Your task to perform on an android device: Show me productivity apps on the Play Store Image 0: 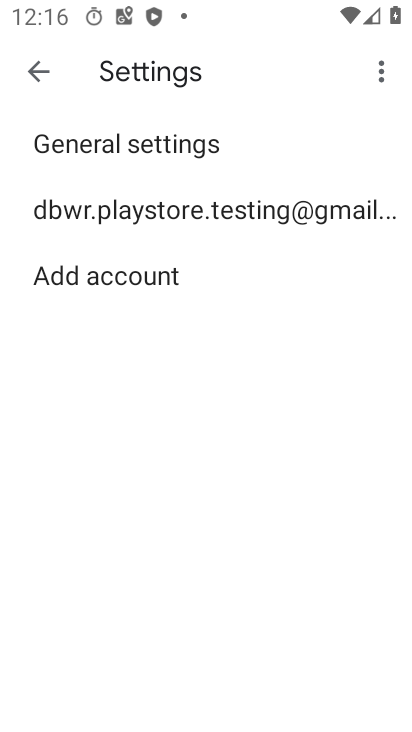
Step 0: click (26, 77)
Your task to perform on an android device: Show me productivity apps on the Play Store Image 1: 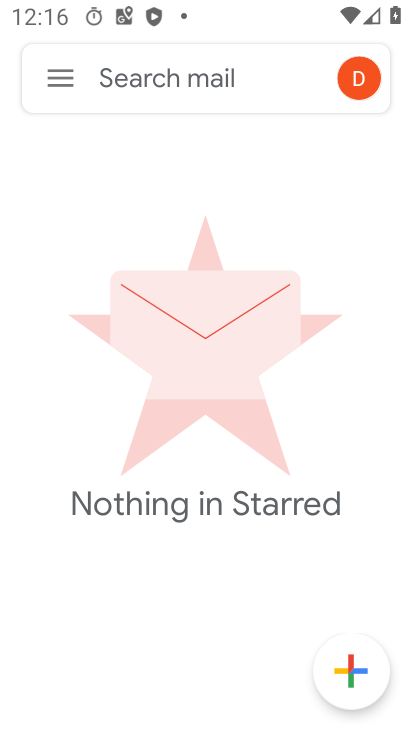
Step 1: press back button
Your task to perform on an android device: Show me productivity apps on the Play Store Image 2: 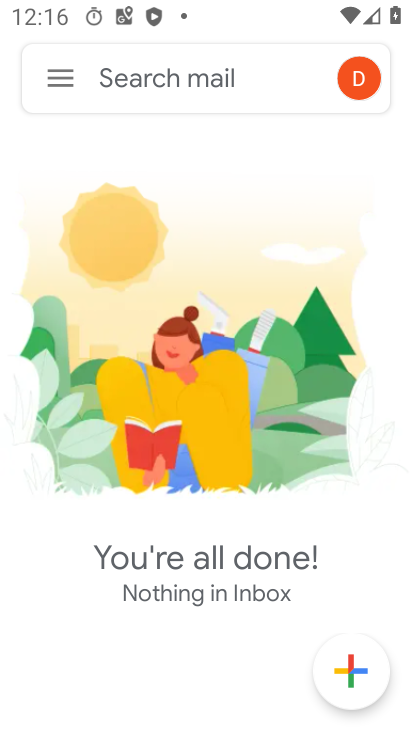
Step 2: press home button
Your task to perform on an android device: Show me productivity apps on the Play Store Image 3: 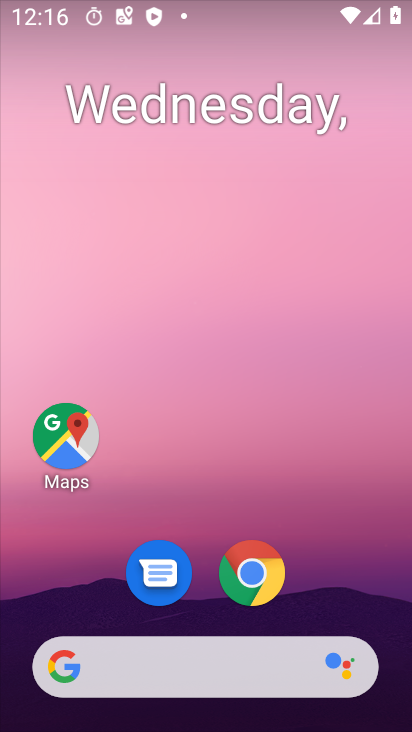
Step 3: drag from (362, 576) to (119, 95)
Your task to perform on an android device: Show me productivity apps on the Play Store Image 4: 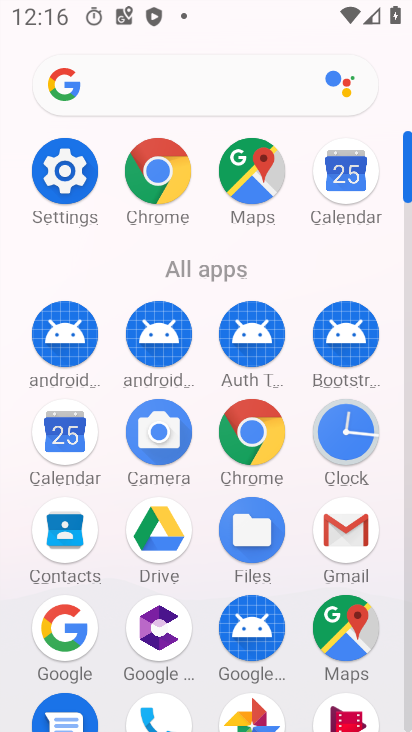
Step 4: drag from (208, 324) to (208, 213)
Your task to perform on an android device: Show me productivity apps on the Play Store Image 5: 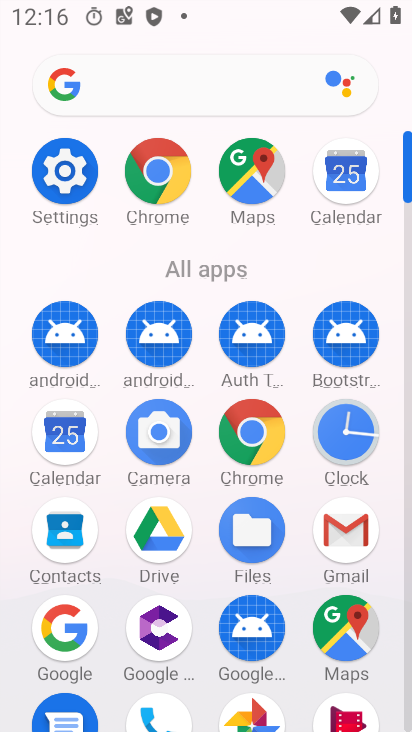
Step 5: drag from (203, 410) to (210, 132)
Your task to perform on an android device: Show me productivity apps on the Play Store Image 6: 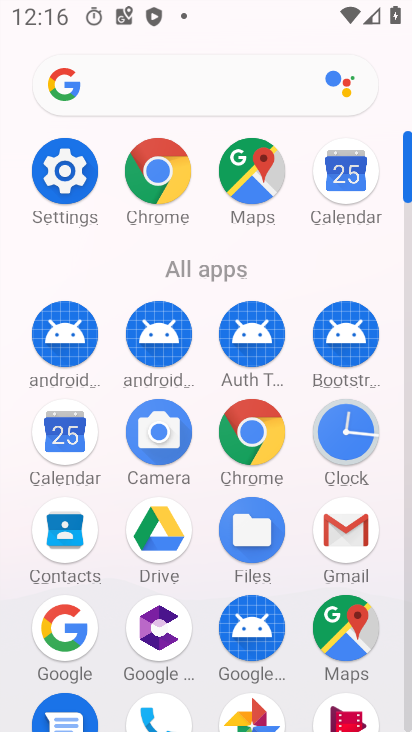
Step 6: drag from (232, 468) to (231, 202)
Your task to perform on an android device: Show me productivity apps on the Play Store Image 7: 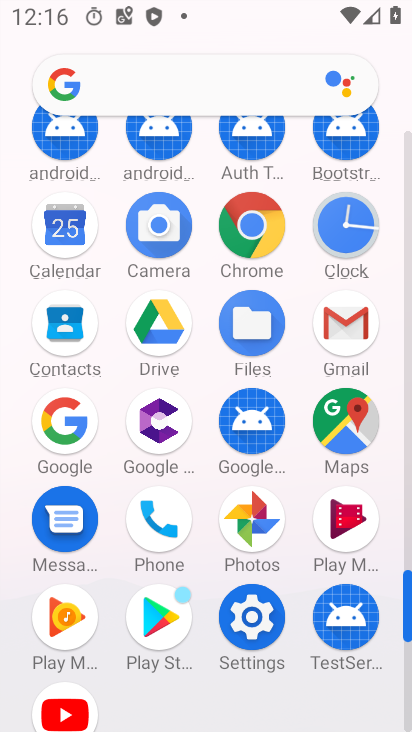
Step 7: drag from (281, 540) to (290, 171)
Your task to perform on an android device: Show me productivity apps on the Play Store Image 8: 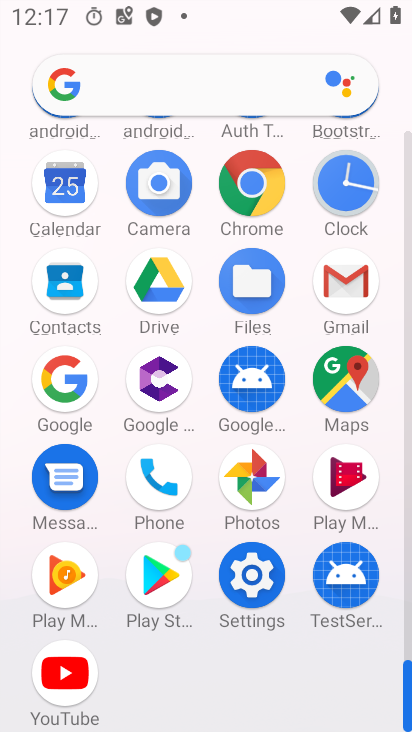
Step 8: click (164, 582)
Your task to perform on an android device: Show me productivity apps on the Play Store Image 9: 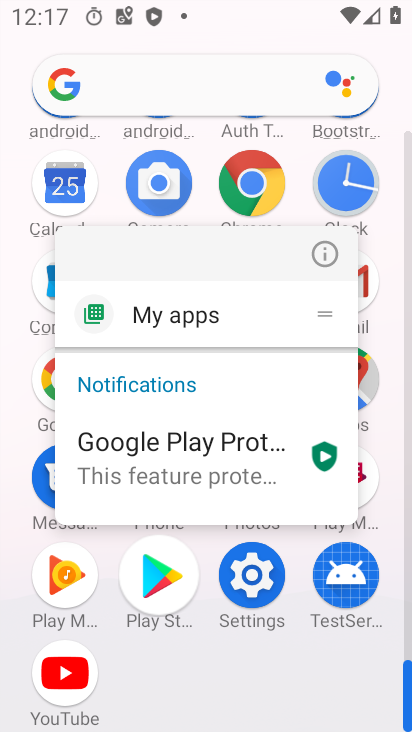
Step 9: click (168, 579)
Your task to perform on an android device: Show me productivity apps on the Play Store Image 10: 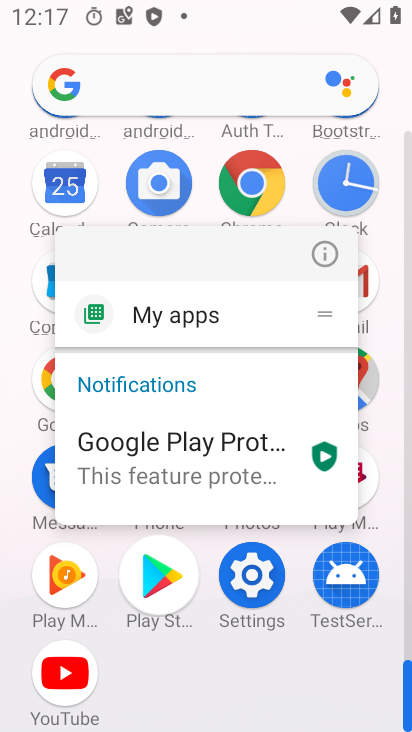
Step 10: click (169, 579)
Your task to perform on an android device: Show me productivity apps on the Play Store Image 11: 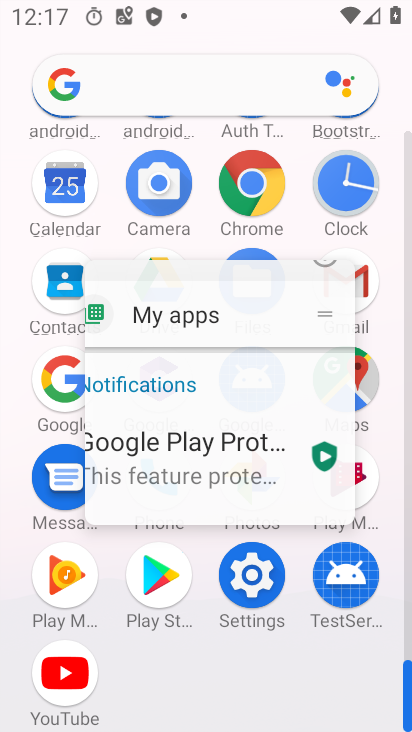
Step 11: click (169, 579)
Your task to perform on an android device: Show me productivity apps on the Play Store Image 12: 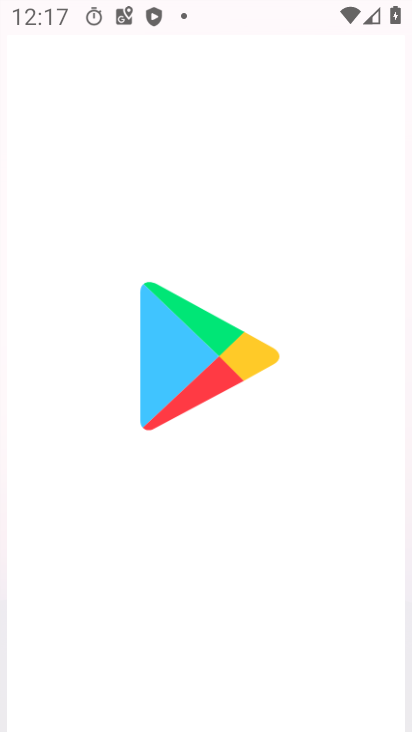
Step 12: click (170, 580)
Your task to perform on an android device: Show me productivity apps on the Play Store Image 13: 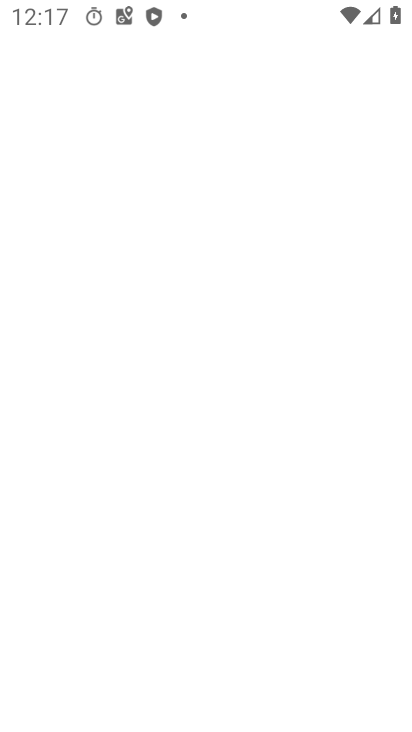
Step 13: click (170, 577)
Your task to perform on an android device: Show me productivity apps on the Play Store Image 14: 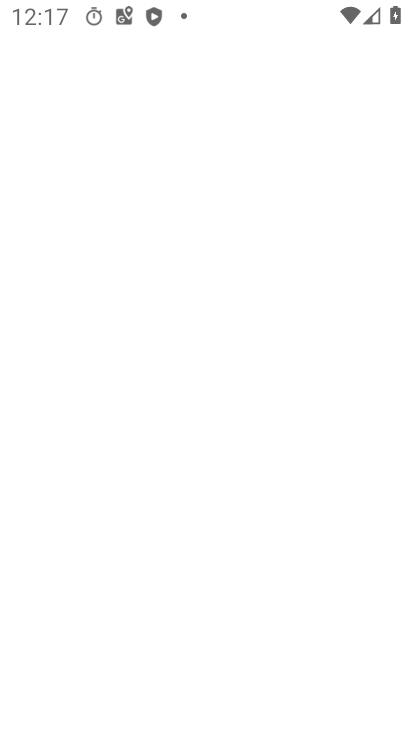
Step 14: click (170, 568)
Your task to perform on an android device: Show me productivity apps on the Play Store Image 15: 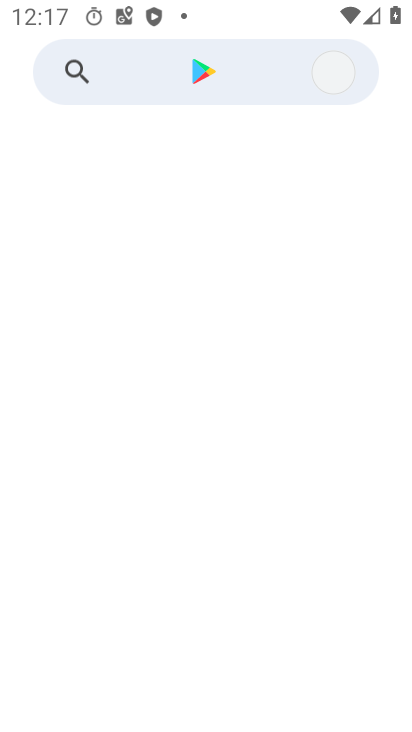
Step 15: click (168, 566)
Your task to perform on an android device: Show me productivity apps on the Play Store Image 16: 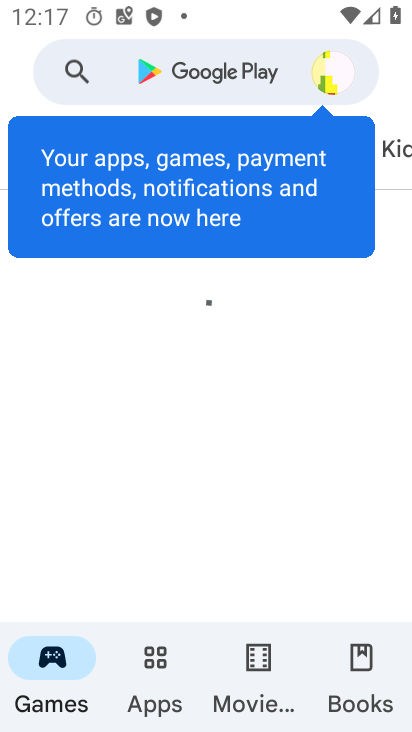
Step 16: click (168, 565)
Your task to perform on an android device: Show me productivity apps on the Play Store Image 17: 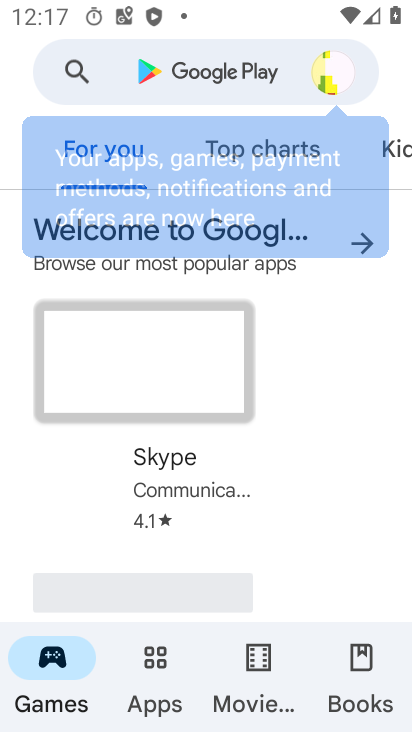
Step 17: click (171, 563)
Your task to perform on an android device: Show me productivity apps on the Play Store Image 18: 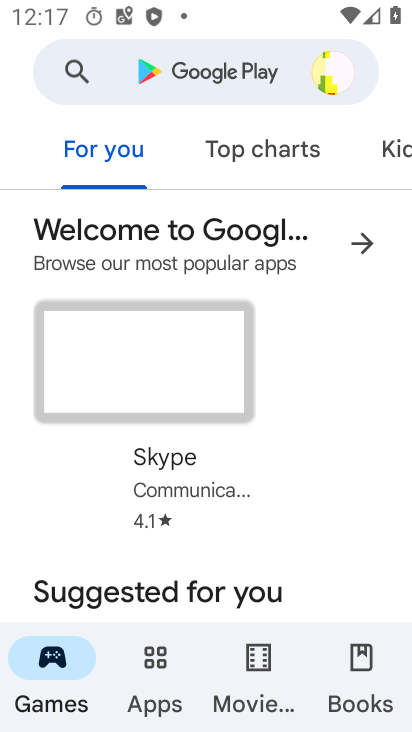
Step 18: click (171, 561)
Your task to perform on an android device: Show me productivity apps on the Play Store Image 19: 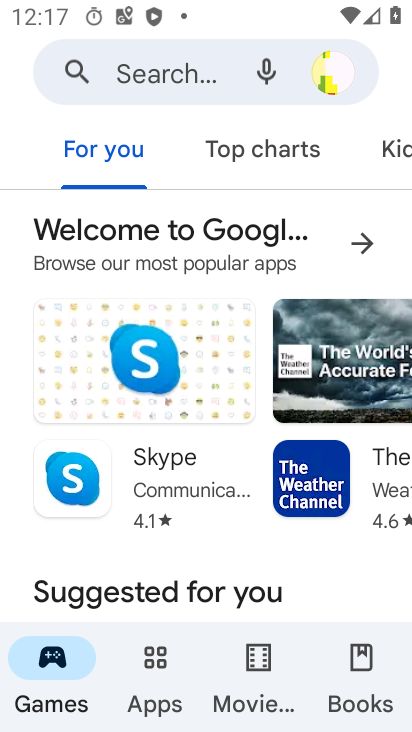
Step 19: drag from (214, 451) to (214, 241)
Your task to perform on an android device: Show me productivity apps on the Play Store Image 20: 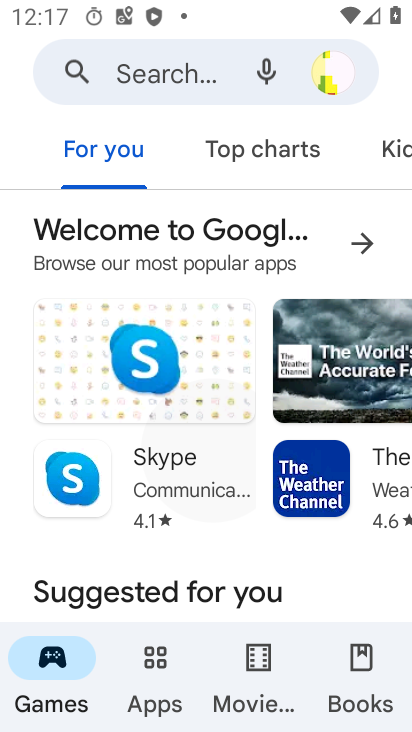
Step 20: drag from (237, 452) to (214, 166)
Your task to perform on an android device: Show me productivity apps on the Play Store Image 21: 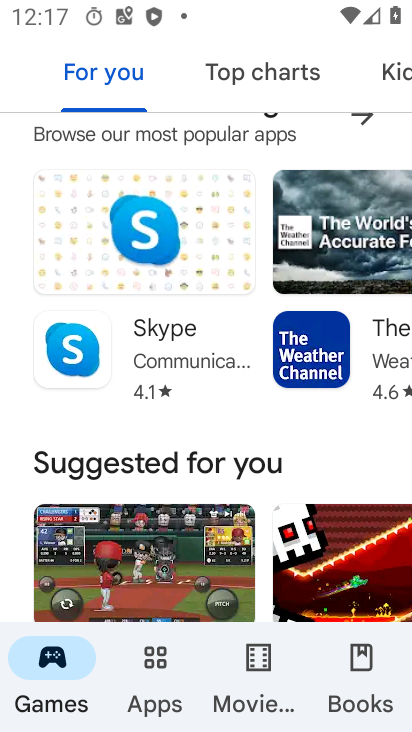
Step 21: drag from (256, 481) to (256, 120)
Your task to perform on an android device: Show me productivity apps on the Play Store Image 22: 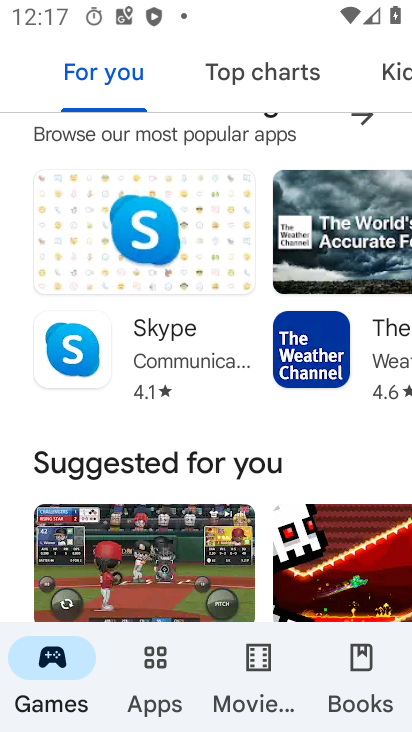
Step 22: drag from (253, 547) to (269, 179)
Your task to perform on an android device: Show me productivity apps on the Play Store Image 23: 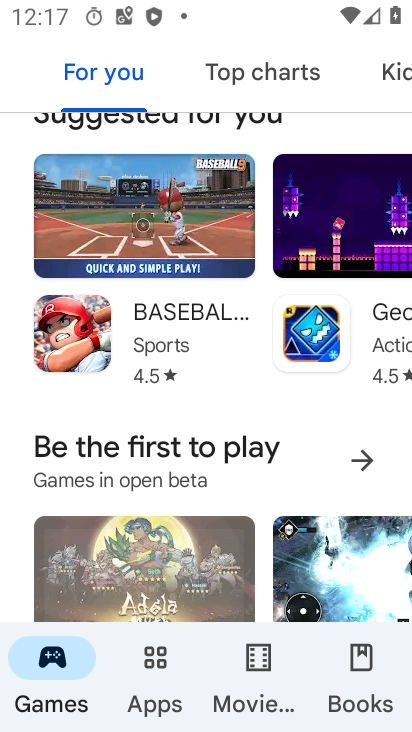
Step 23: drag from (253, 393) to (290, 46)
Your task to perform on an android device: Show me productivity apps on the Play Store Image 24: 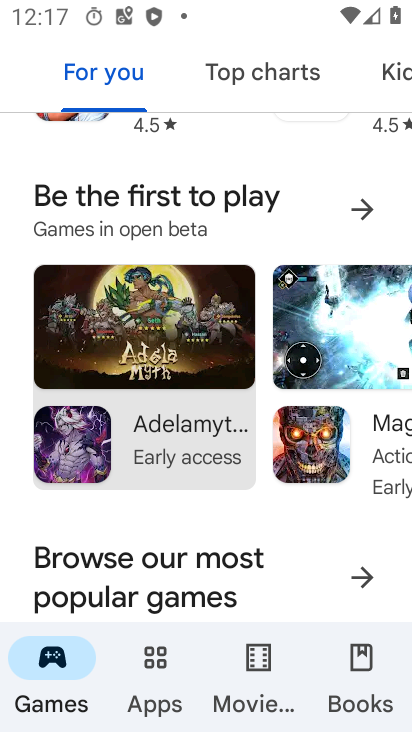
Step 24: click (358, 99)
Your task to perform on an android device: Show me productivity apps on the Play Store Image 25: 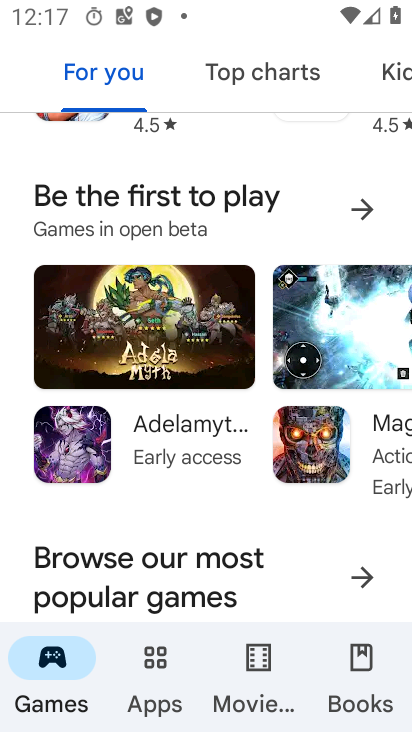
Step 25: drag from (205, 317) to (205, 63)
Your task to perform on an android device: Show me productivity apps on the Play Store Image 26: 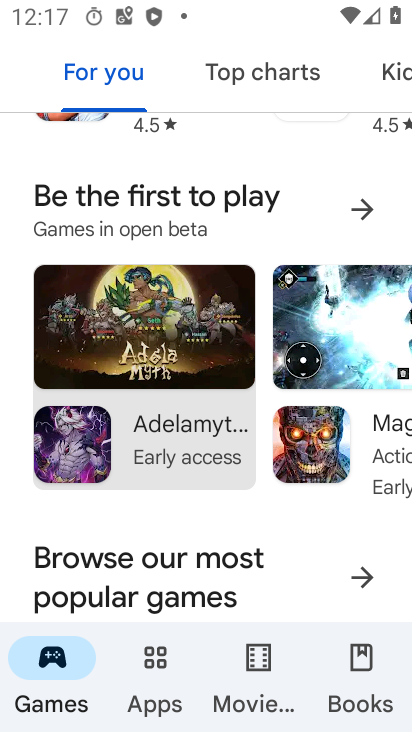
Step 26: drag from (166, 230) to (195, 103)
Your task to perform on an android device: Show me productivity apps on the Play Store Image 27: 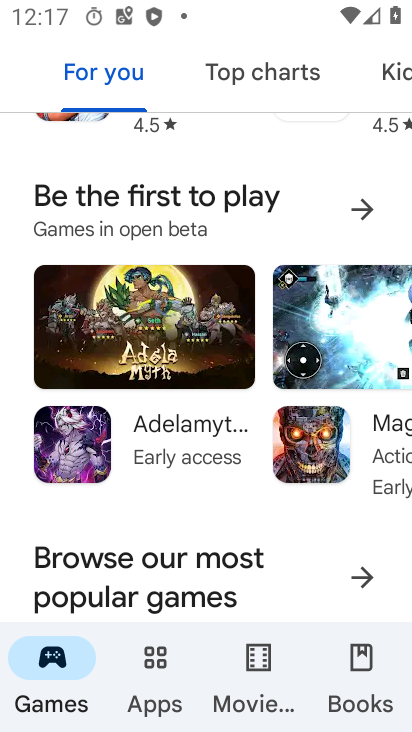
Step 27: drag from (219, 396) to (276, 29)
Your task to perform on an android device: Show me productivity apps on the Play Store Image 28: 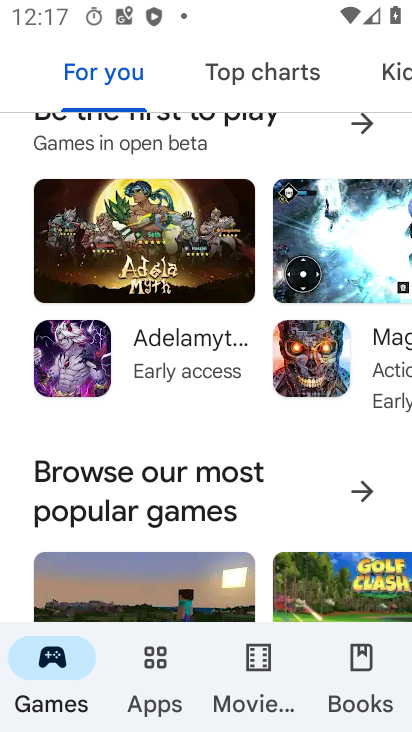
Step 28: drag from (248, 481) to (272, 142)
Your task to perform on an android device: Show me productivity apps on the Play Store Image 29: 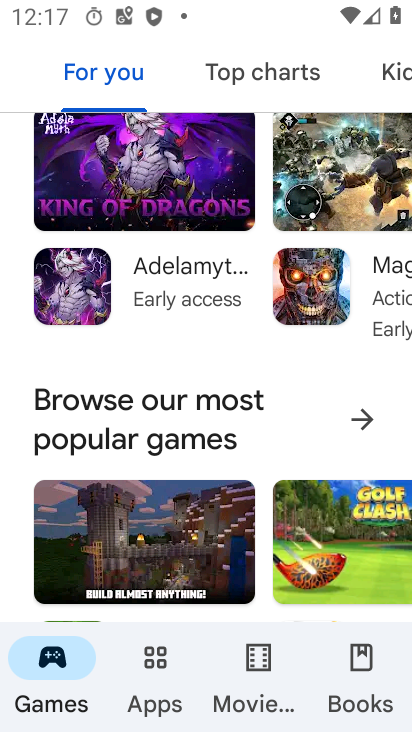
Step 29: drag from (167, 173) to (183, 727)
Your task to perform on an android device: Show me productivity apps on the Play Store Image 30: 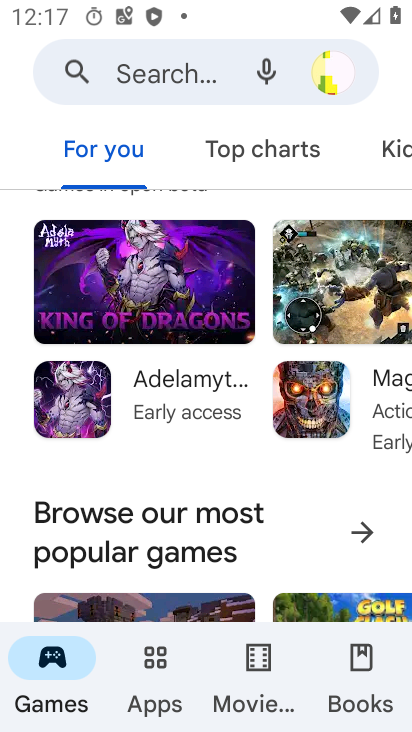
Step 30: drag from (115, 248) to (256, 614)
Your task to perform on an android device: Show me productivity apps on the Play Store Image 31: 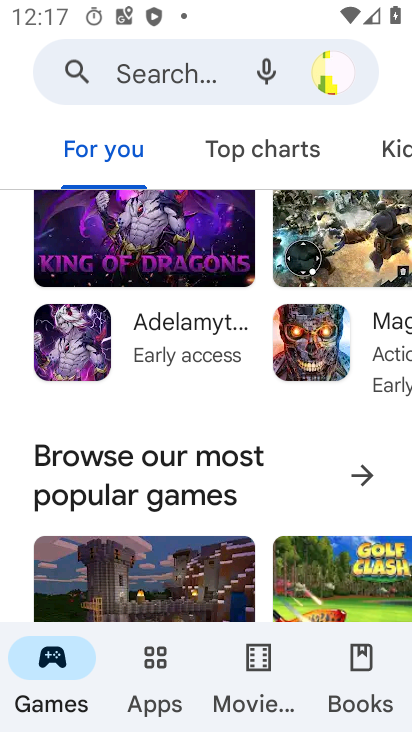
Step 31: drag from (186, 444) to (214, 554)
Your task to perform on an android device: Show me productivity apps on the Play Store Image 32: 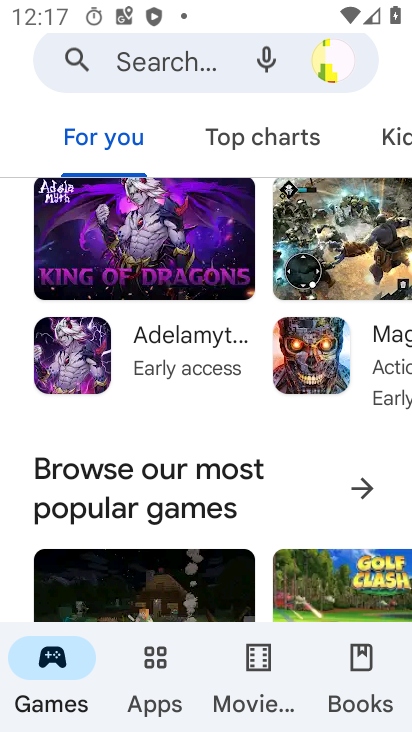
Step 32: drag from (80, 162) to (211, 570)
Your task to perform on an android device: Show me productivity apps on the Play Store Image 33: 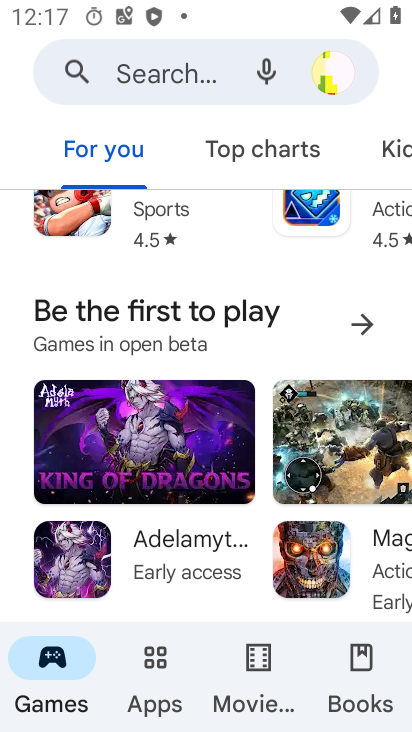
Step 33: click (141, 68)
Your task to perform on an android device: Show me productivity apps on the Play Store Image 34: 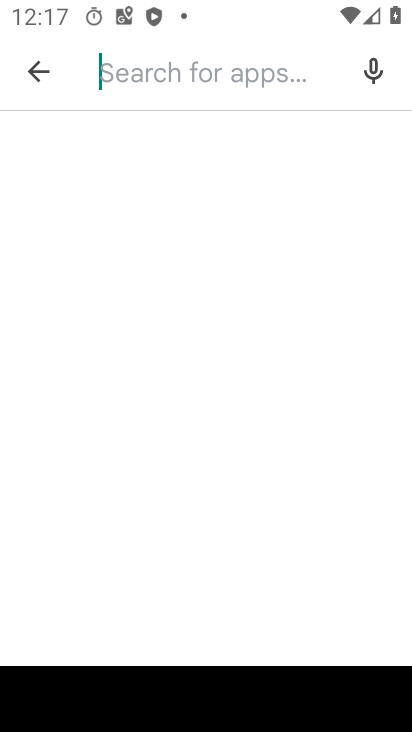
Step 34: type "productivity aps"
Your task to perform on an android device: Show me productivity apps on the Play Store Image 35: 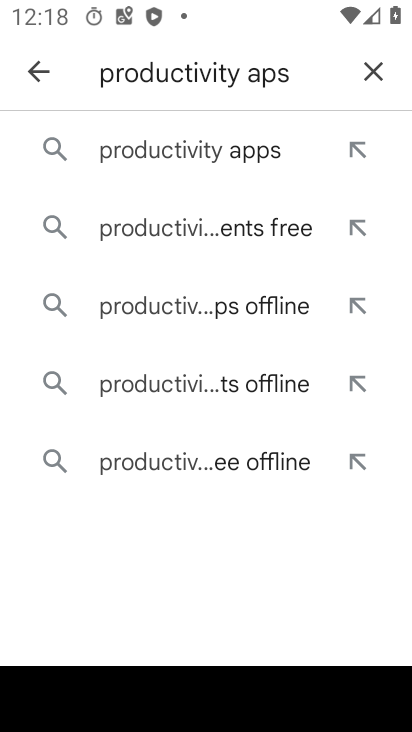
Step 35: click (176, 95)
Your task to perform on an android device: Show me productivity apps on the Play Store Image 36: 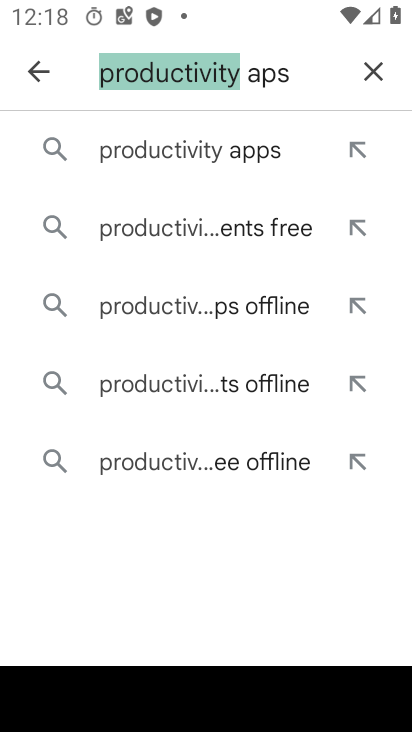
Step 36: click (179, 81)
Your task to perform on an android device: Show me productivity apps on the Play Store Image 37: 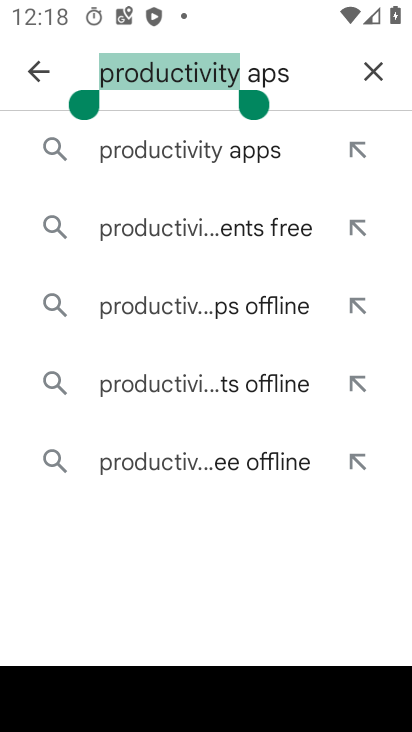
Step 37: click (186, 81)
Your task to perform on an android device: Show me productivity apps on the Play Store Image 38: 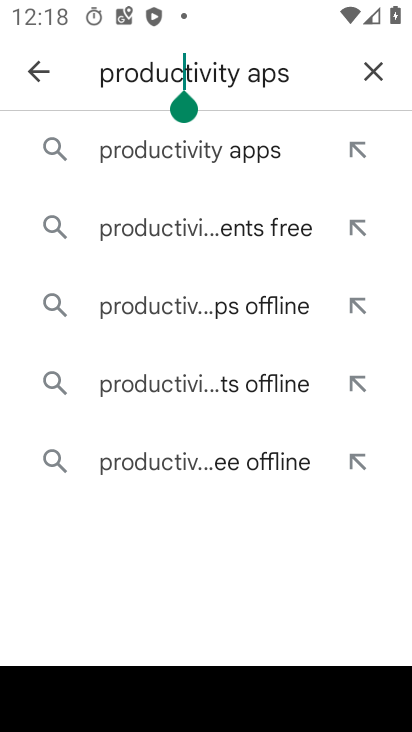
Step 38: click (286, 82)
Your task to perform on an android device: Show me productivity apps on the Play Store Image 39: 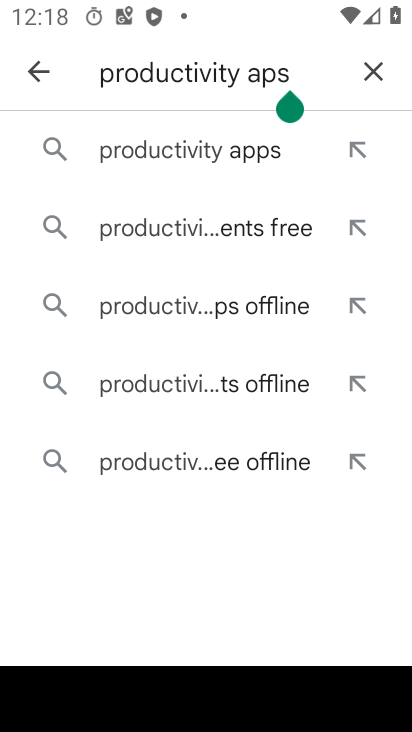
Step 39: click (286, 82)
Your task to perform on an android device: Show me productivity apps on the Play Store Image 40: 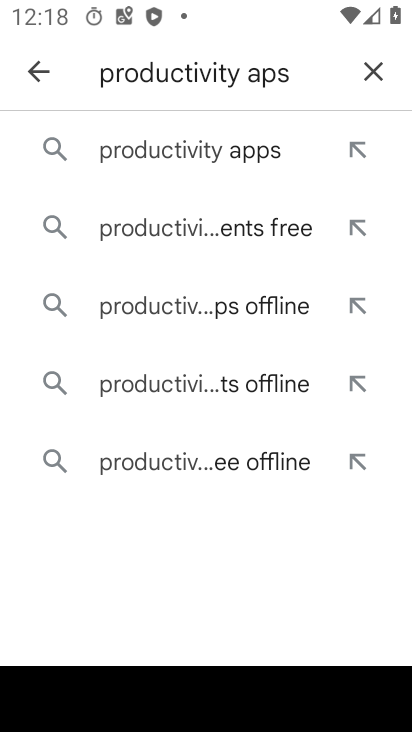
Step 40: task complete